Your task to perform on an android device: Find coffee shops on Maps Image 0: 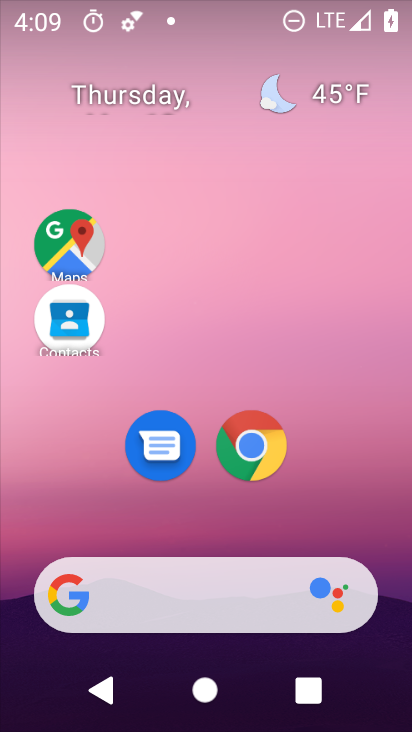
Step 0: click (67, 244)
Your task to perform on an android device: Find coffee shops on Maps Image 1: 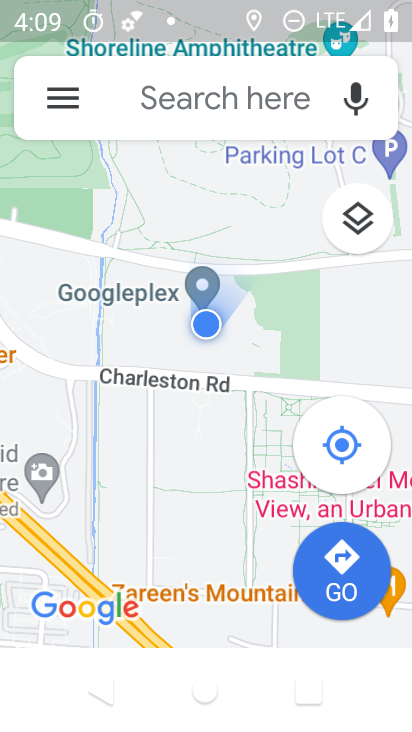
Step 1: click (177, 107)
Your task to perform on an android device: Find coffee shops on Maps Image 2: 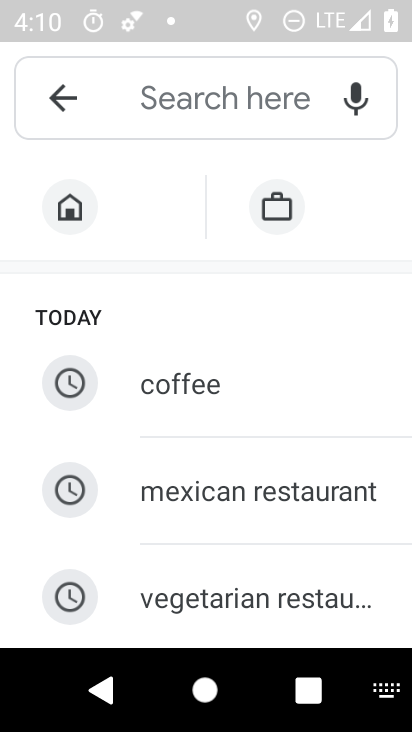
Step 2: type "coffee shops"
Your task to perform on an android device: Find coffee shops on Maps Image 3: 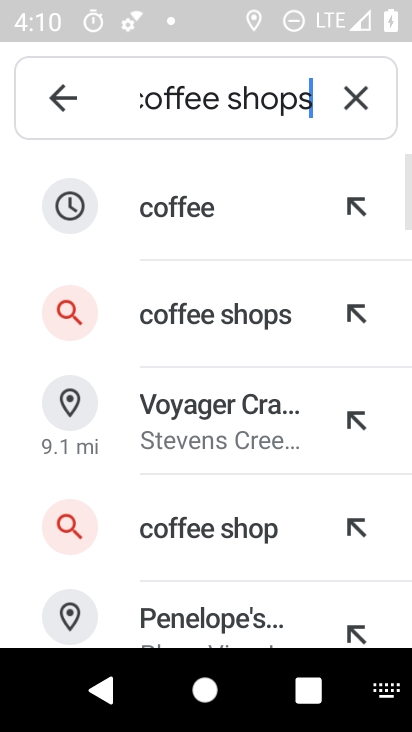
Step 3: click (250, 313)
Your task to perform on an android device: Find coffee shops on Maps Image 4: 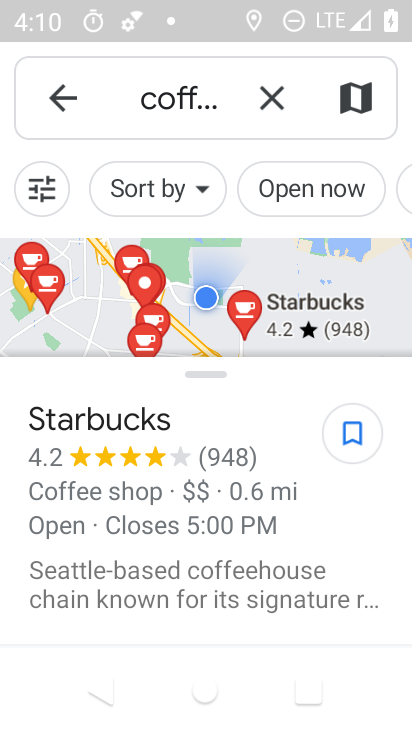
Step 4: task complete